Your task to perform on an android device: allow notifications from all sites in the chrome app Image 0: 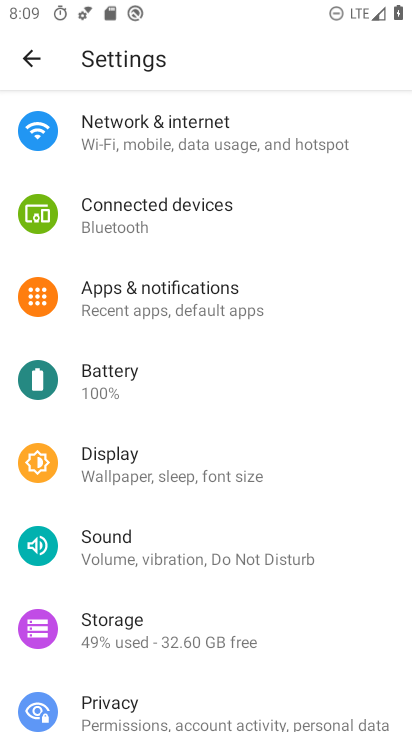
Step 0: press home button
Your task to perform on an android device: allow notifications from all sites in the chrome app Image 1: 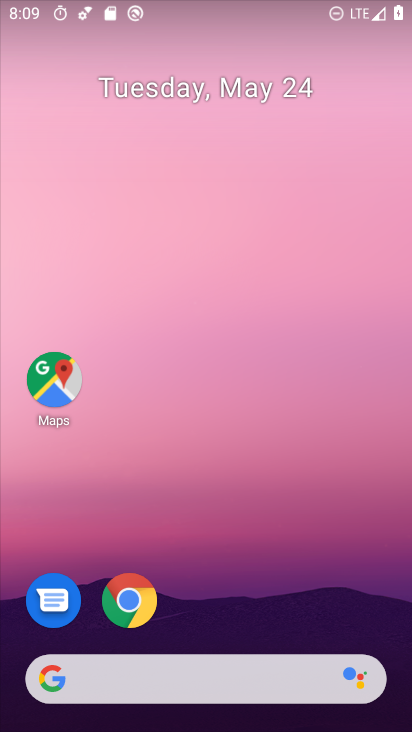
Step 1: click (123, 603)
Your task to perform on an android device: allow notifications from all sites in the chrome app Image 2: 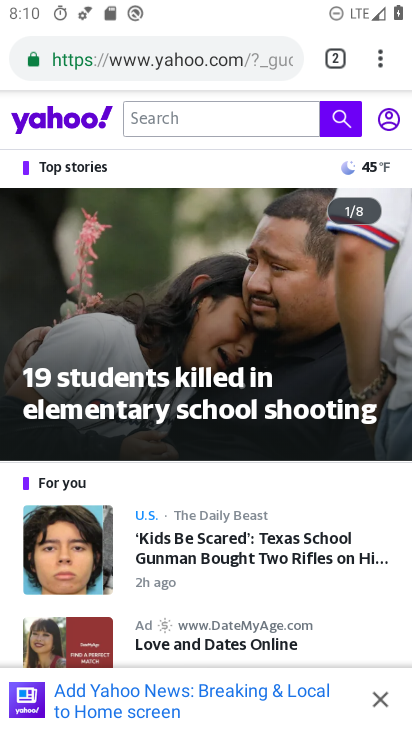
Step 2: click (380, 50)
Your task to perform on an android device: allow notifications from all sites in the chrome app Image 3: 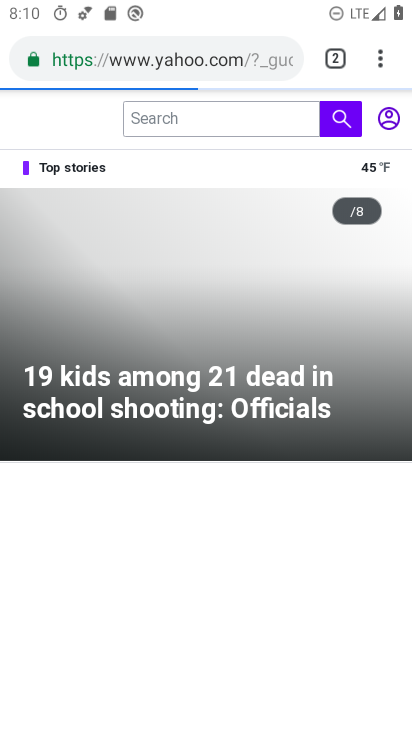
Step 3: drag from (384, 52) to (191, 628)
Your task to perform on an android device: allow notifications from all sites in the chrome app Image 4: 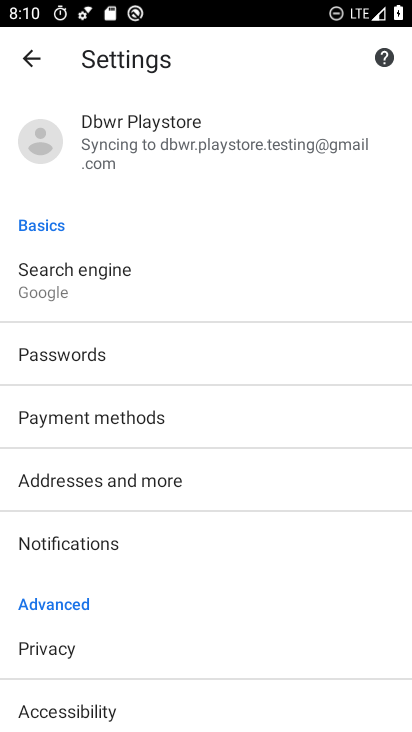
Step 4: click (85, 540)
Your task to perform on an android device: allow notifications from all sites in the chrome app Image 5: 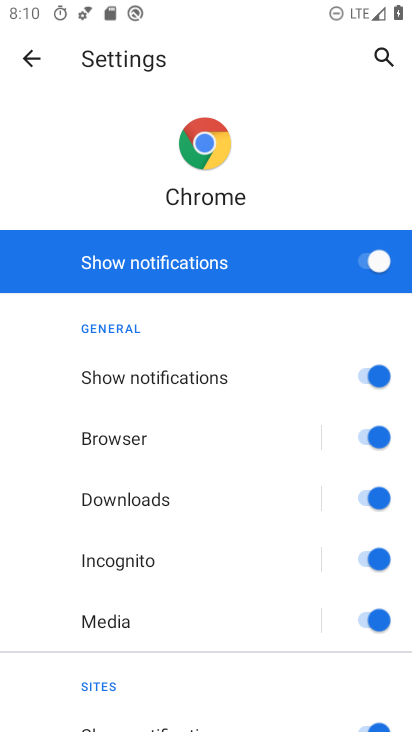
Step 5: task complete